Your task to perform on an android device: Open the calendar app, open the side menu, and click the "Day" option Image 0: 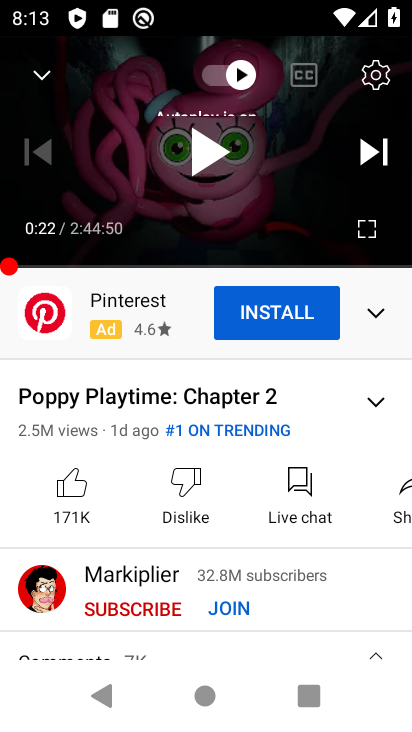
Step 0: press home button
Your task to perform on an android device: Open the calendar app, open the side menu, and click the "Day" option Image 1: 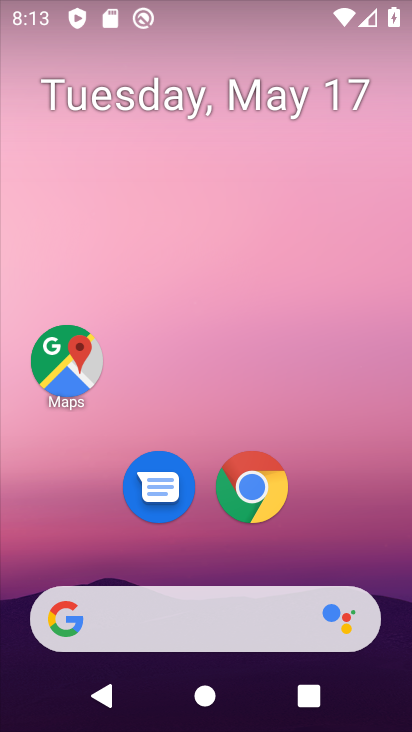
Step 1: drag from (253, 651) to (363, 157)
Your task to perform on an android device: Open the calendar app, open the side menu, and click the "Day" option Image 2: 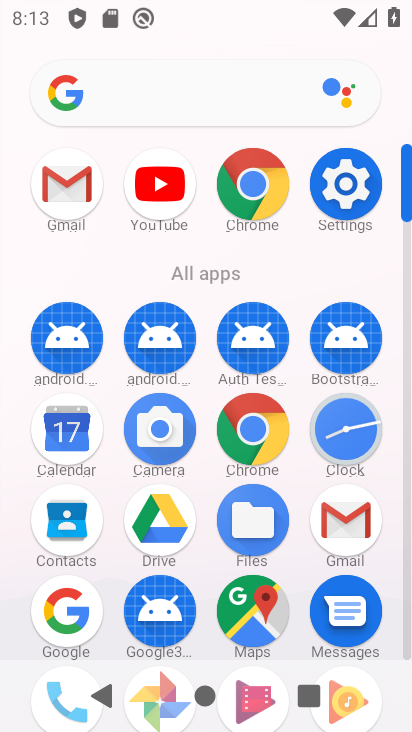
Step 2: click (82, 423)
Your task to perform on an android device: Open the calendar app, open the side menu, and click the "Day" option Image 3: 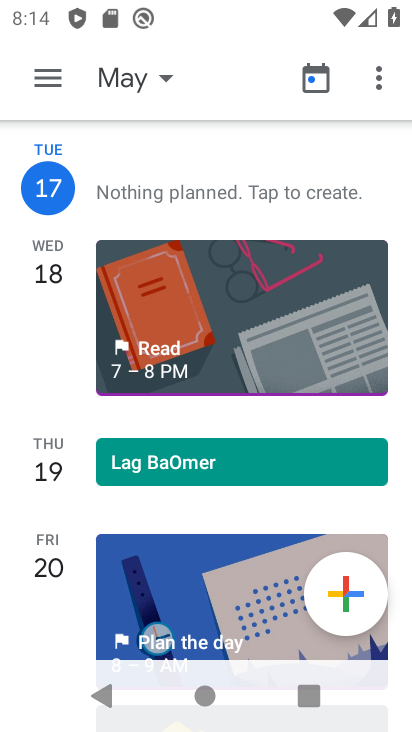
Step 3: click (52, 96)
Your task to perform on an android device: Open the calendar app, open the side menu, and click the "Day" option Image 4: 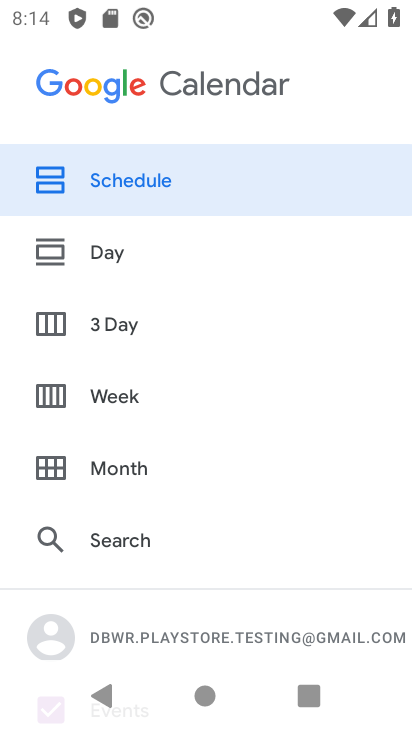
Step 4: click (136, 253)
Your task to perform on an android device: Open the calendar app, open the side menu, and click the "Day" option Image 5: 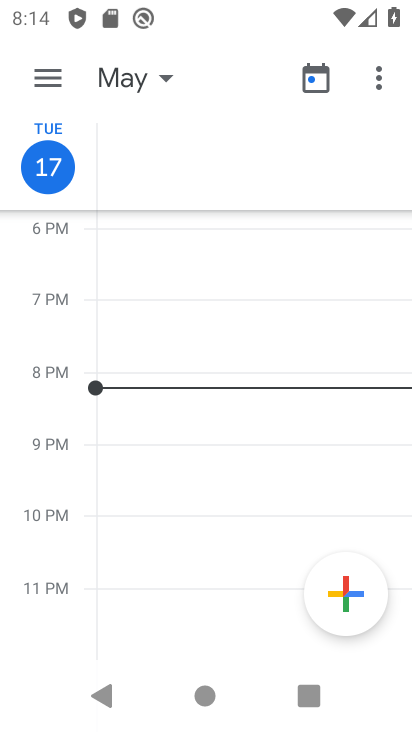
Step 5: task complete